Your task to perform on an android device: empty trash in the gmail app Image 0: 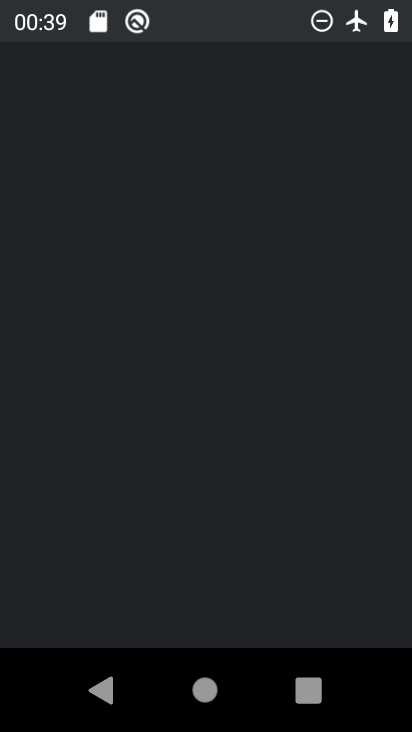
Step 0: drag from (275, 512) to (275, 626)
Your task to perform on an android device: empty trash in the gmail app Image 1: 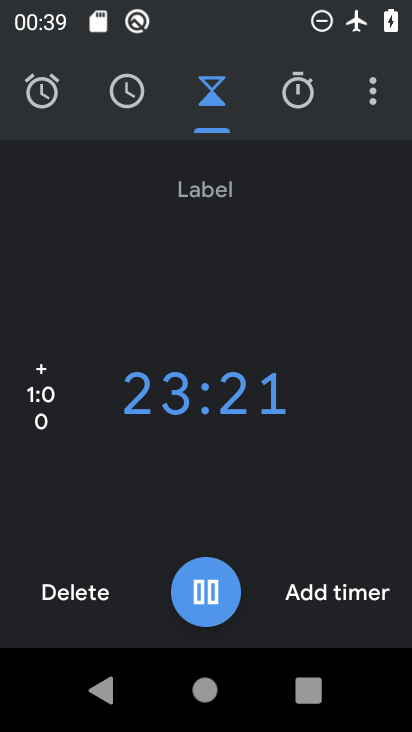
Step 1: drag from (339, 14) to (337, 569)
Your task to perform on an android device: empty trash in the gmail app Image 2: 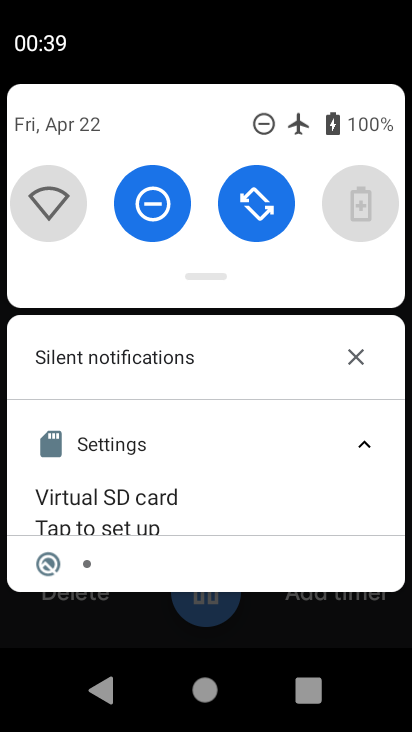
Step 2: drag from (234, 320) to (285, 578)
Your task to perform on an android device: empty trash in the gmail app Image 3: 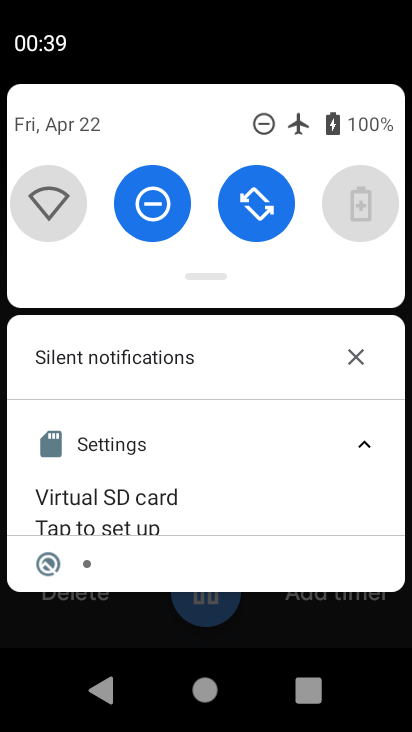
Step 3: drag from (226, 268) to (338, 639)
Your task to perform on an android device: empty trash in the gmail app Image 4: 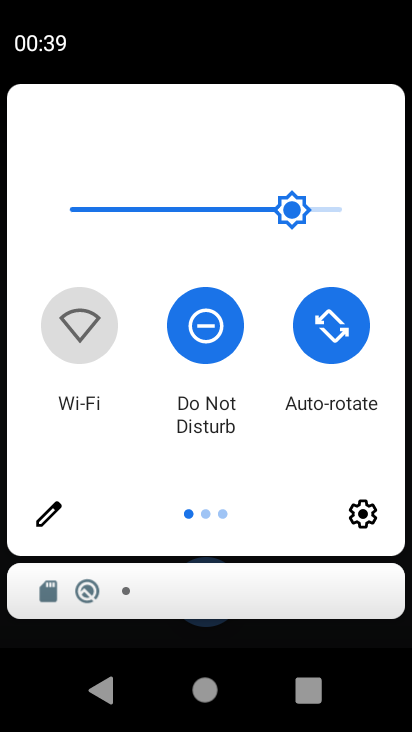
Step 4: drag from (353, 437) to (79, 434)
Your task to perform on an android device: empty trash in the gmail app Image 5: 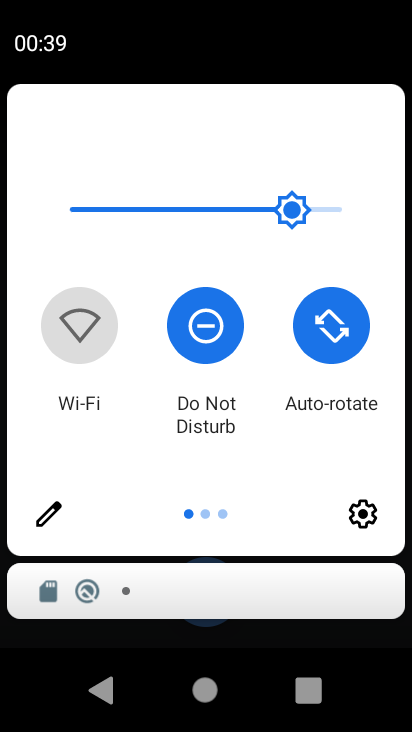
Step 5: drag from (311, 414) to (10, 433)
Your task to perform on an android device: empty trash in the gmail app Image 6: 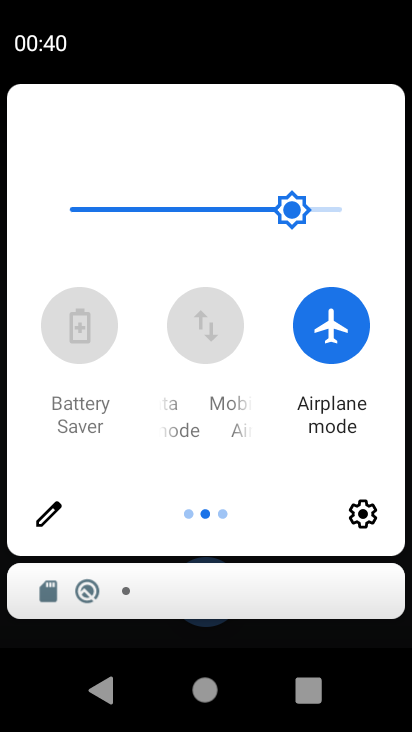
Step 6: click (333, 344)
Your task to perform on an android device: empty trash in the gmail app Image 7: 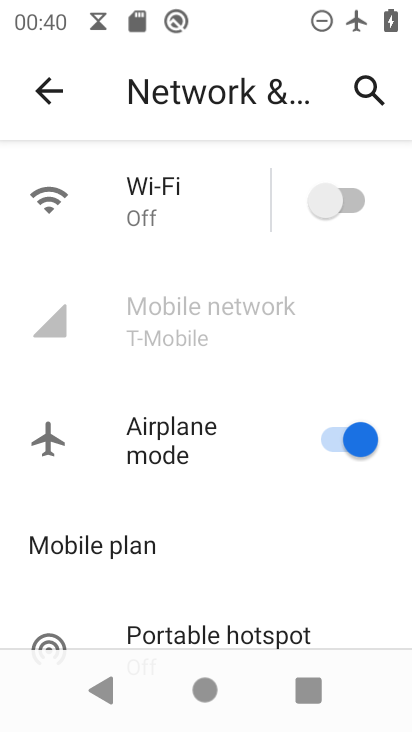
Step 7: drag from (190, 557) to (235, 193)
Your task to perform on an android device: empty trash in the gmail app Image 8: 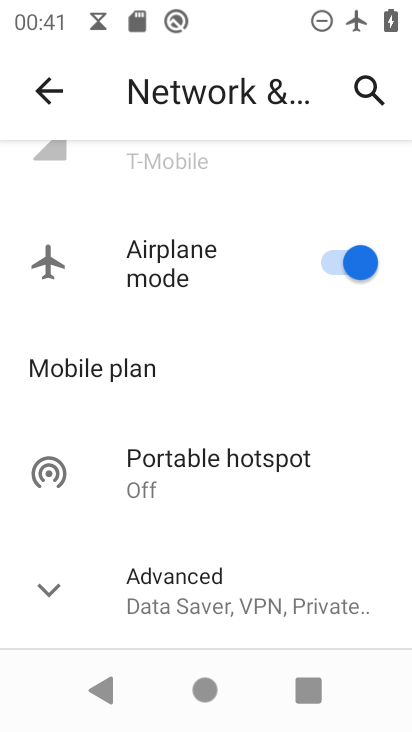
Step 8: drag from (270, 546) to (344, 82)
Your task to perform on an android device: empty trash in the gmail app Image 9: 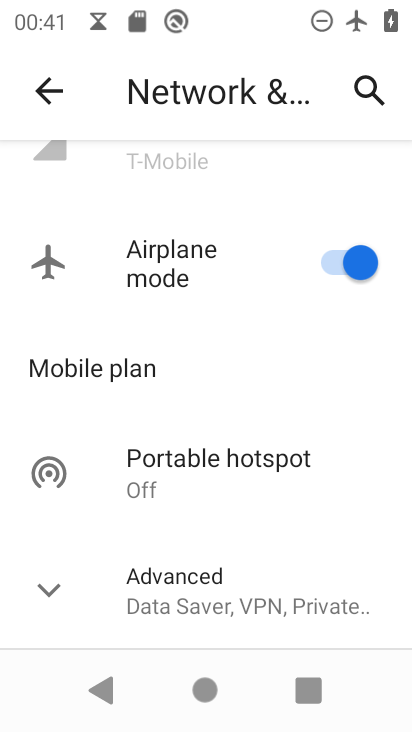
Step 9: drag from (174, 269) to (405, 635)
Your task to perform on an android device: empty trash in the gmail app Image 10: 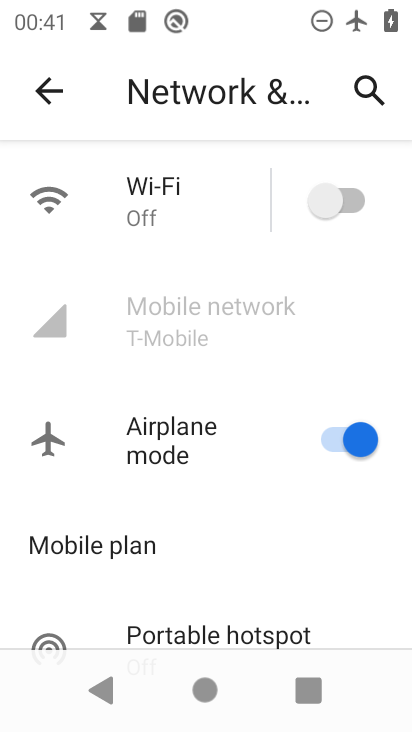
Step 10: press home button
Your task to perform on an android device: empty trash in the gmail app Image 11: 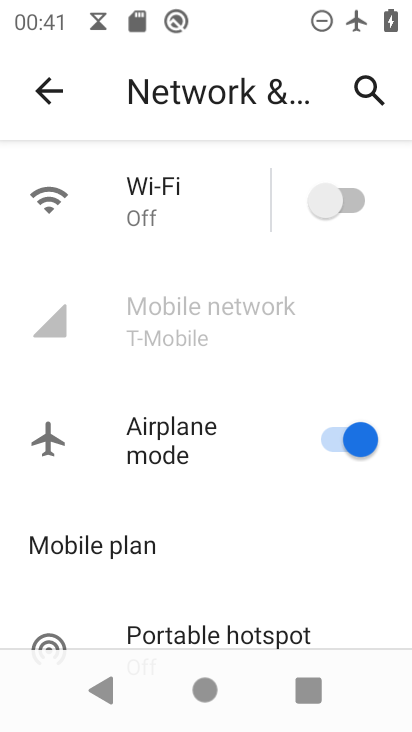
Step 11: click (391, 329)
Your task to perform on an android device: empty trash in the gmail app Image 12: 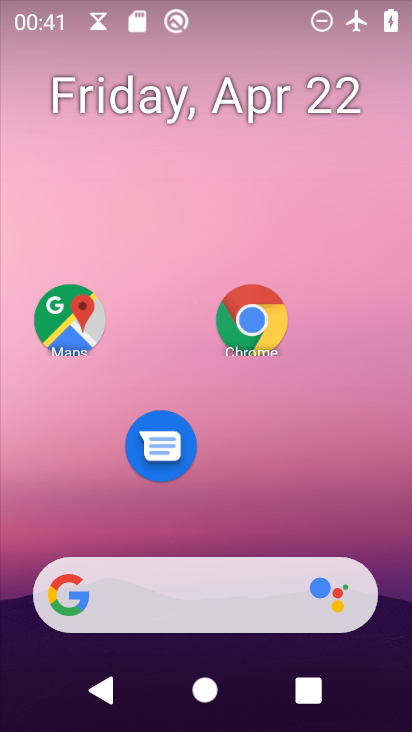
Step 12: drag from (208, 515) to (201, 116)
Your task to perform on an android device: empty trash in the gmail app Image 13: 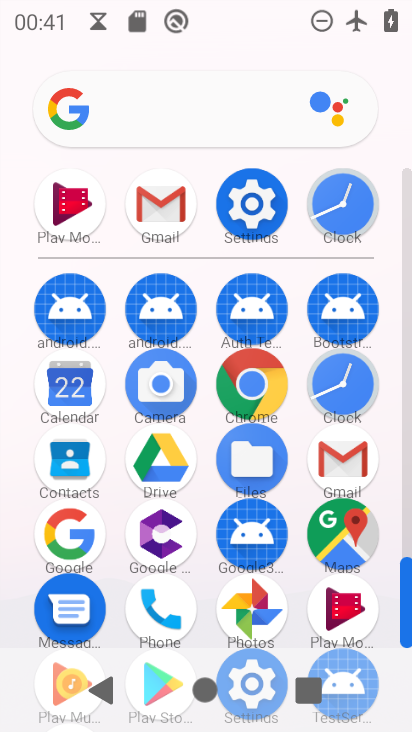
Step 13: click (346, 445)
Your task to perform on an android device: empty trash in the gmail app Image 14: 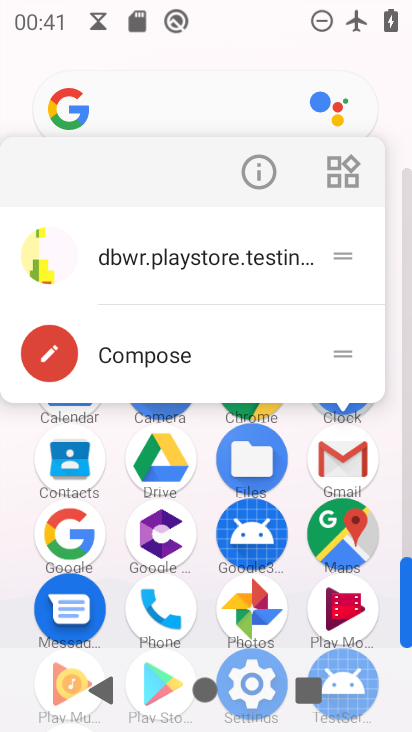
Step 14: click (260, 164)
Your task to perform on an android device: empty trash in the gmail app Image 15: 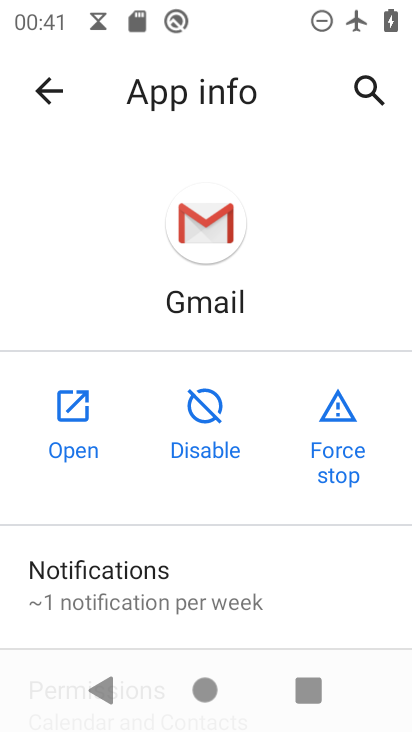
Step 15: click (60, 434)
Your task to perform on an android device: empty trash in the gmail app Image 16: 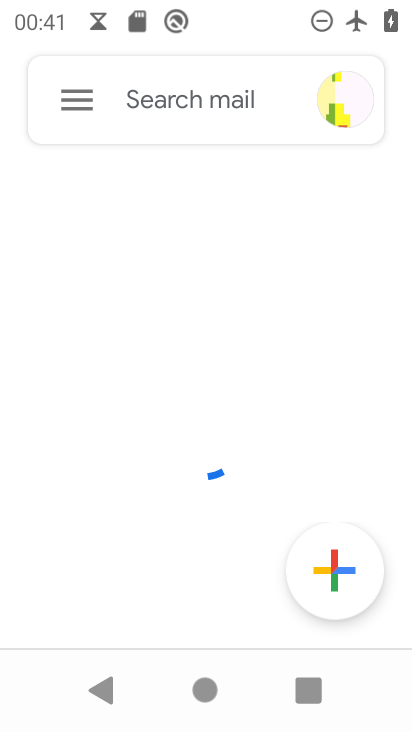
Step 16: click (97, 106)
Your task to perform on an android device: empty trash in the gmail app Image 17: 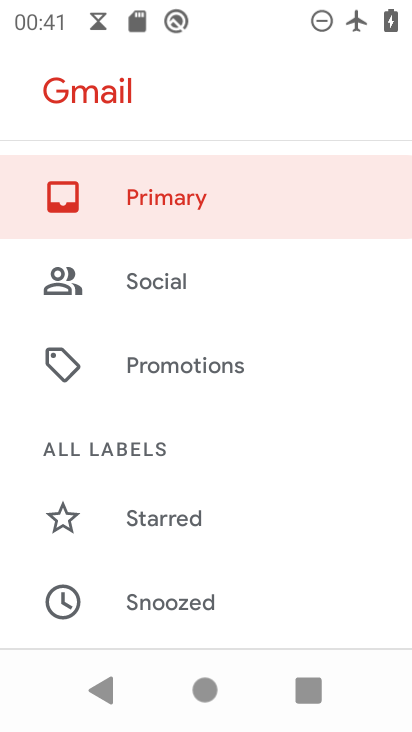
Step 17: click (201, 464)
Your task to perform on an android device: empty trash in the gmail app Image 18: 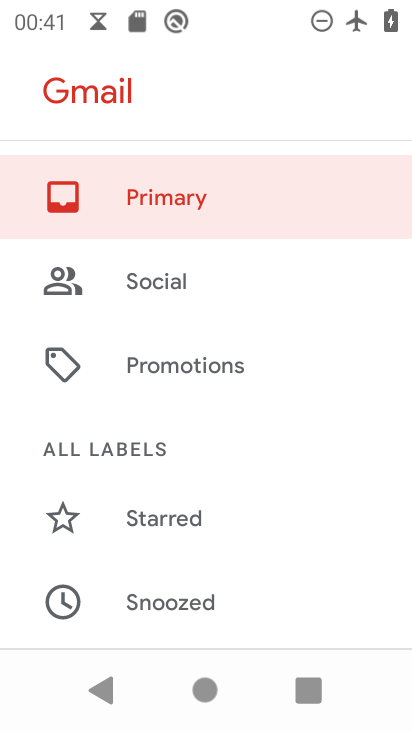
Step 18: drag from (200, 448) to (246, 41)
Your task to perform on an android device: empty trash in the gmail app Image 19: 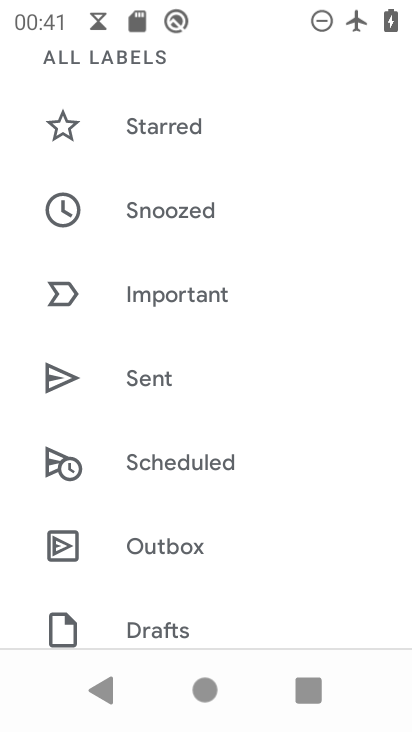
Step 19: drag from (197, 458) to (226, 138)
Your task to perform on an android device: empty trash in the gmail app Image 20: 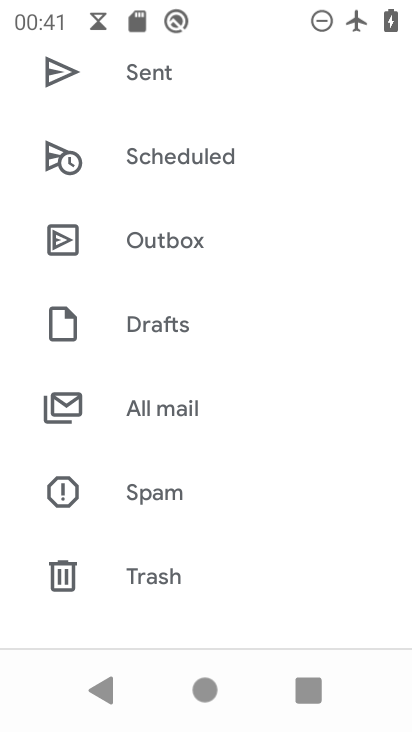
Step 20: click (137, 576)
Your task to perform on an android device: empty trash in the gmail app Image 21: 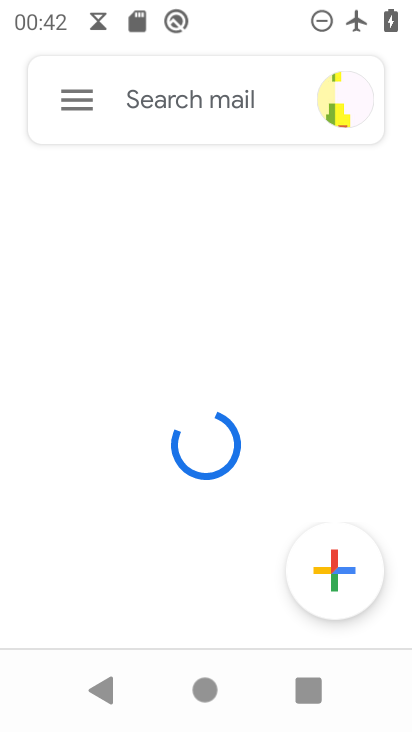
Step 21: task complete